Your task to perform on an android device: turn off location history Image 0: 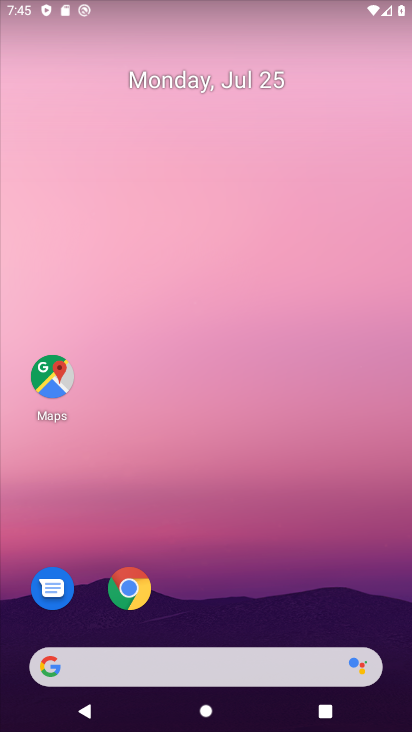
Step 0: drag from (214, 644) to (214, 413)
Your task to perform on an android device: turn off location history Image 1: 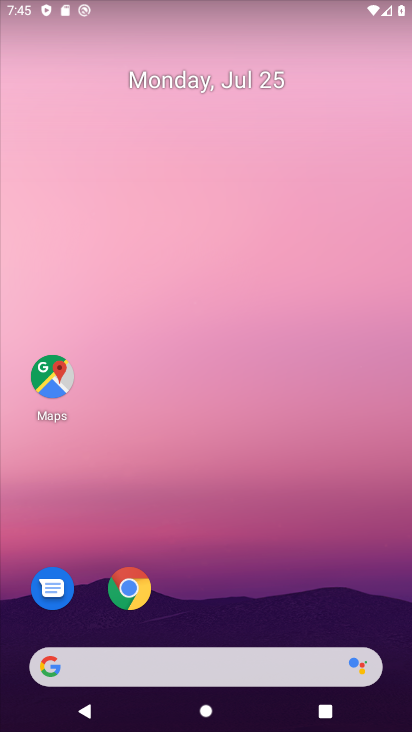
Step 1: drag from (218, 631) to (185, 7)
Your task to perform on an android device: turn off location history Image 2: 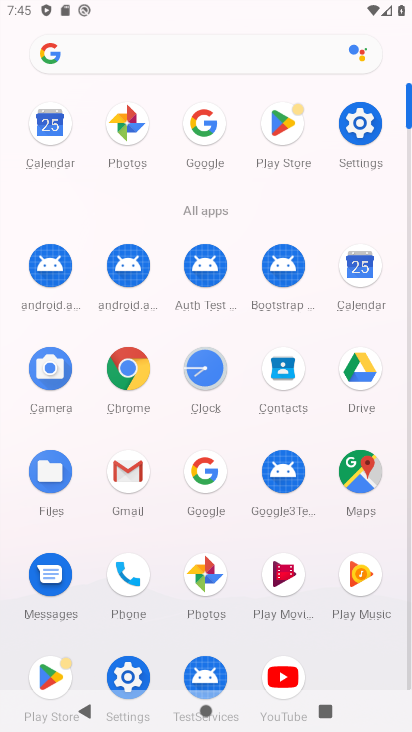
Step 2: click (355, 131)
Your task to perform on an android device: turn off location history Image 3: 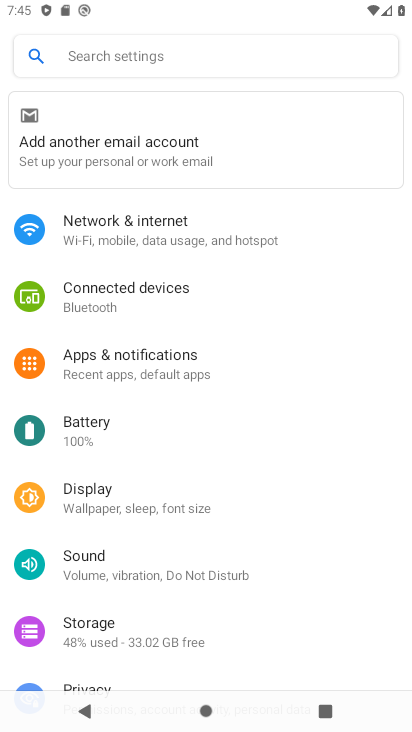
Step 3: drag from (130, 661) to (135, 300)
Your task to perform on an android device: turn off location history Image 4: 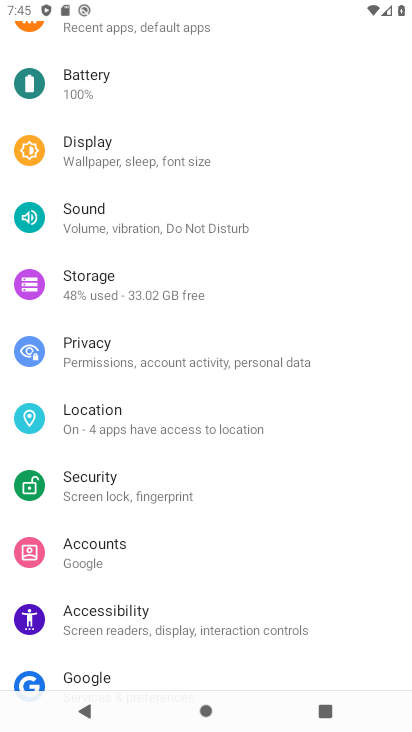
Step 4: click (88, 415)
Your task to perform on an android device: turn off location history Image 5: 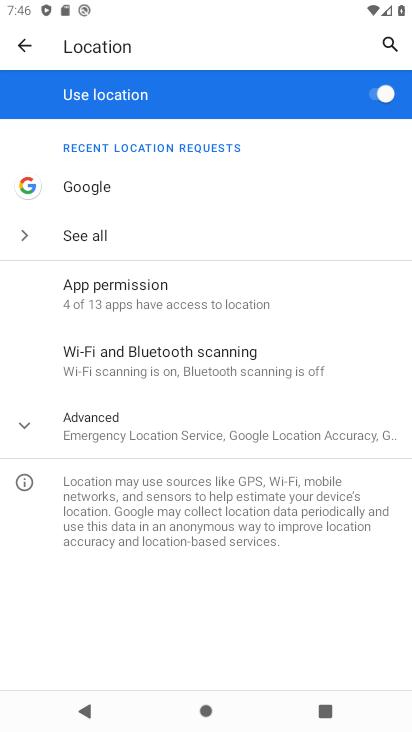
Step 5: click (82, 429)
Your task to perform on an android device: turn off location history Image 6: 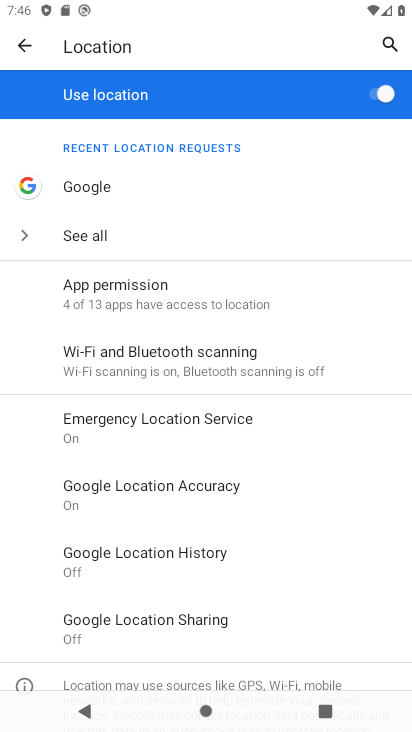
Step 6: click (167, 547)
Your task to perform on an android device: turn off location history Image 7: 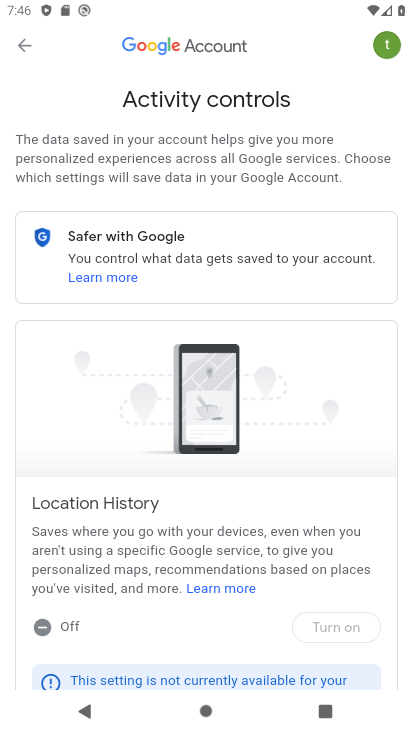
Step 7: task complete